Your task to perform on an android device: Open calendar and show me the second week of next month Image 0: 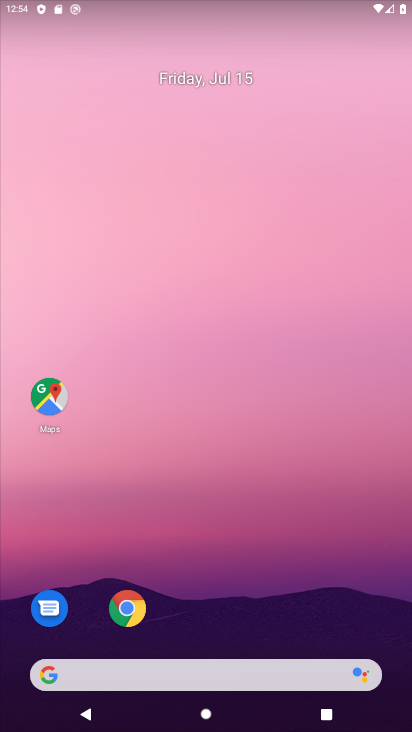
Step 0: drag from (225, 442) to (286, 132)
Your task to perform on an android device: Open calendar and show me the second week of next month Image 1: 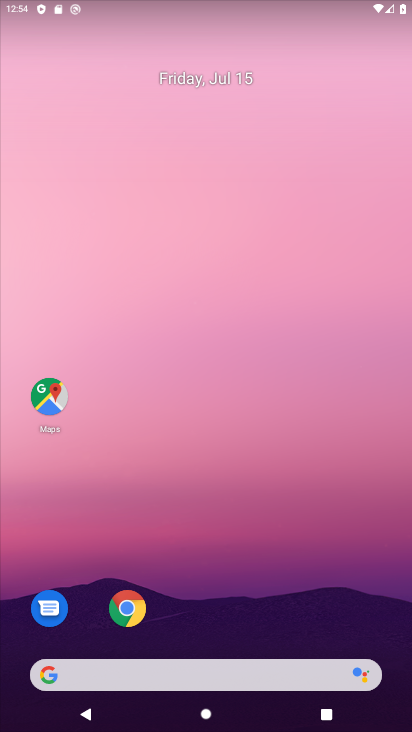
Step 1: click (250, 262)
Your task to perform on an android device: Open calendar and show me the second week of next month Image 2: 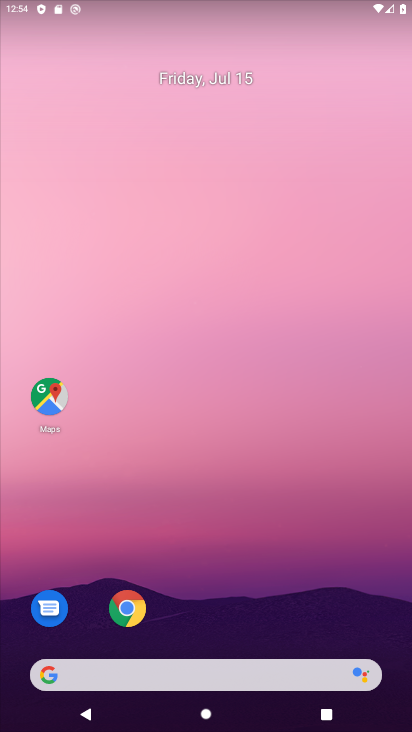
Step 2: drag from (205, 628) to (301, 163)
Your task to perform on an android device: Open calendar and show me the second week of next month Image 3: 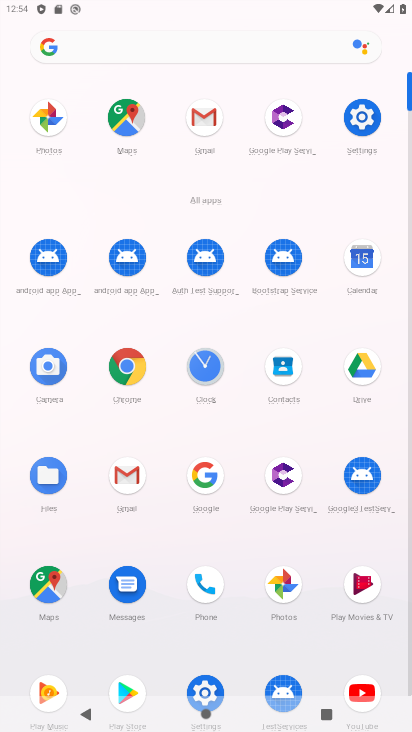
Step 3: click (372, 252)
Your task to perform on an android device: Open calendar and show me the second week of next month Image 4: 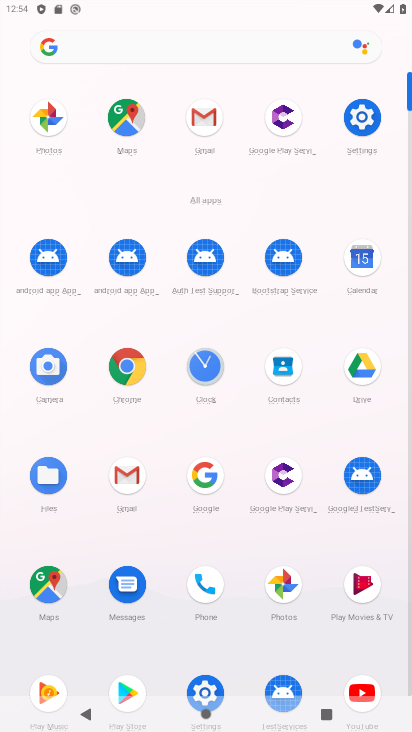
Step 4: click (372, 252)
Your task to perform on an android device: Open calendar and show me the second week of next month Image 5: 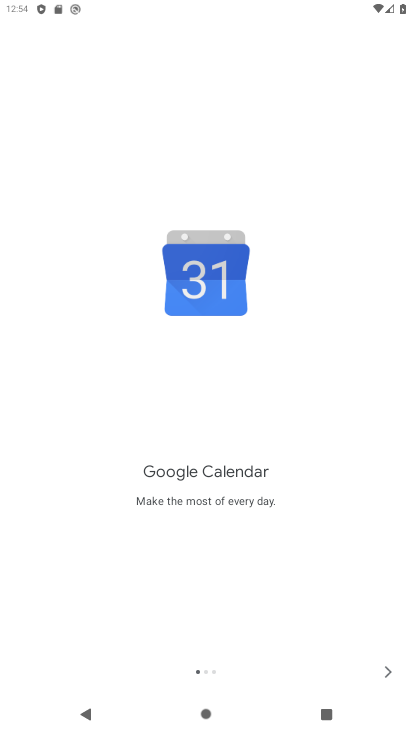
Step 5: drag from (217, 523) to (266, 220)
Your task to perform on an android device: Open calendar and show me the second week of next month Image 6: 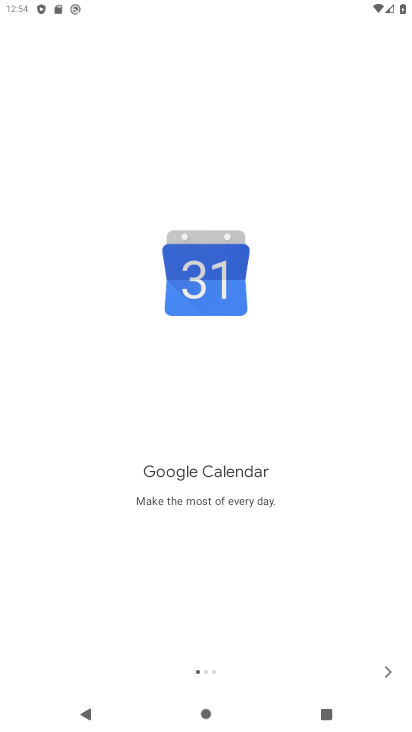
Step 6: click (373, 661)
Your task to perform on an android device: Open calendar and show me the second week of next month Image 7: 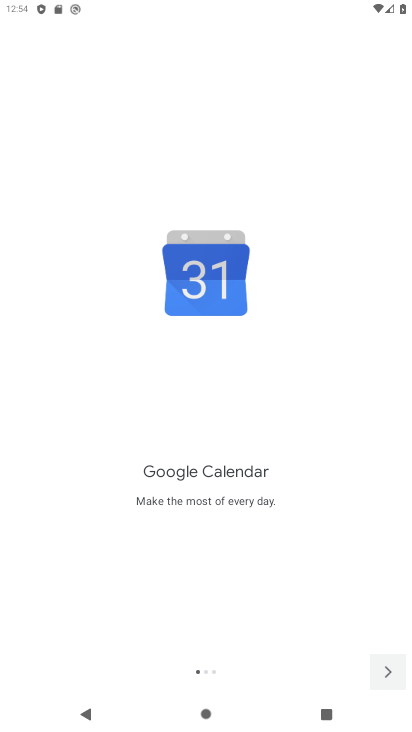
Step 7: click (375, 661)
Your task to perform on an android device: Open calendar and show me the second week of next month Image 8: 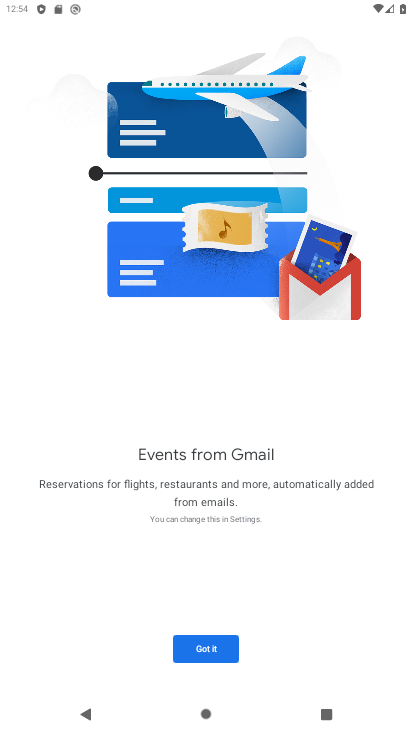
Step 8: click (375, 661)
Your task to perform on an android device: Open calendar and show me the second week of next month Image 9: 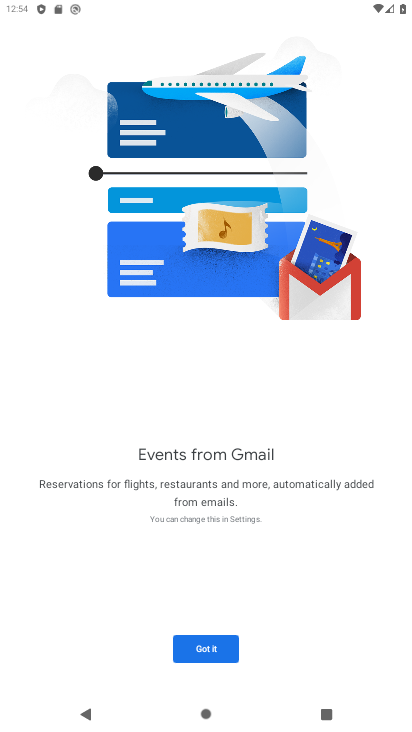
Step 9: click (213, 638)
Your task to perform on an android device: Open calendar and show me the second week of next month Image 10: 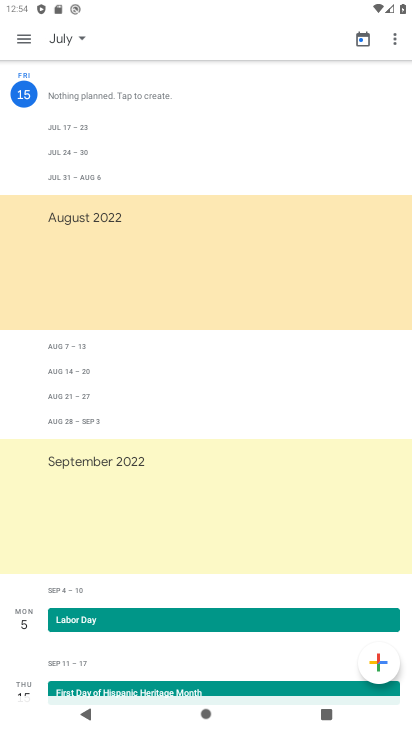
Step 10: drag from (203, 665) to (269, 308)
Your task to perform on an android device: Open calendar and show me the second week of next month Image 11: 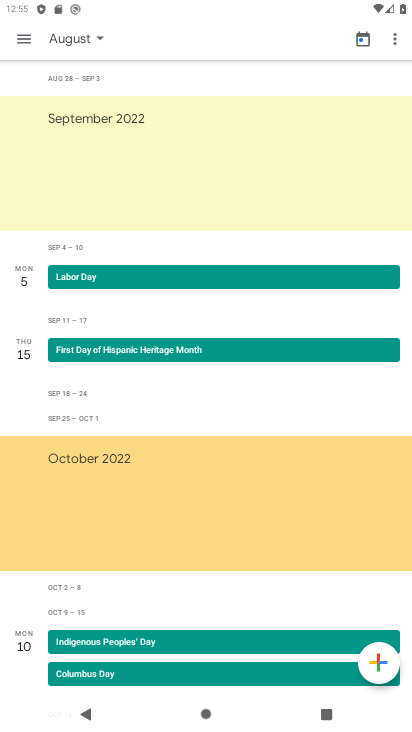
Step 11: click (79, 46)
Your task to perform on an android device: Open calendar and show me the second week of next month Image 12: 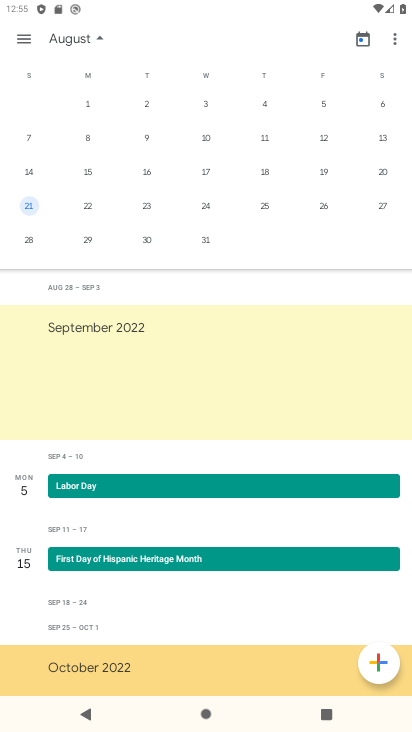
Step 12: click (272, 135)
Your task to perform on an android device: Open calendar and show me the second week of next month Image 13: 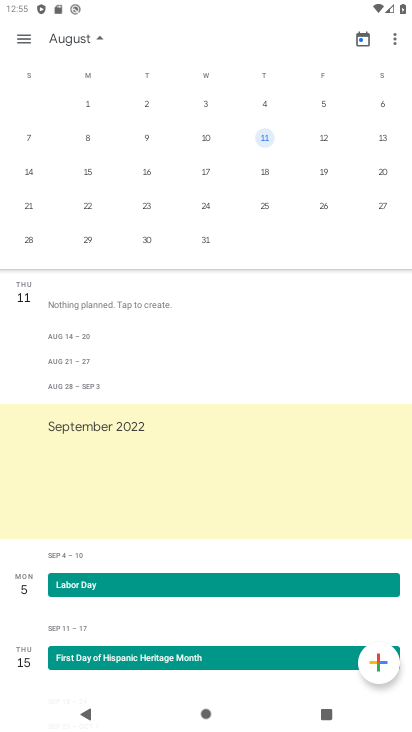
Step 13: task complete